Your task to perform on an android device: toggle priority inbox in the gmail app Image 0: 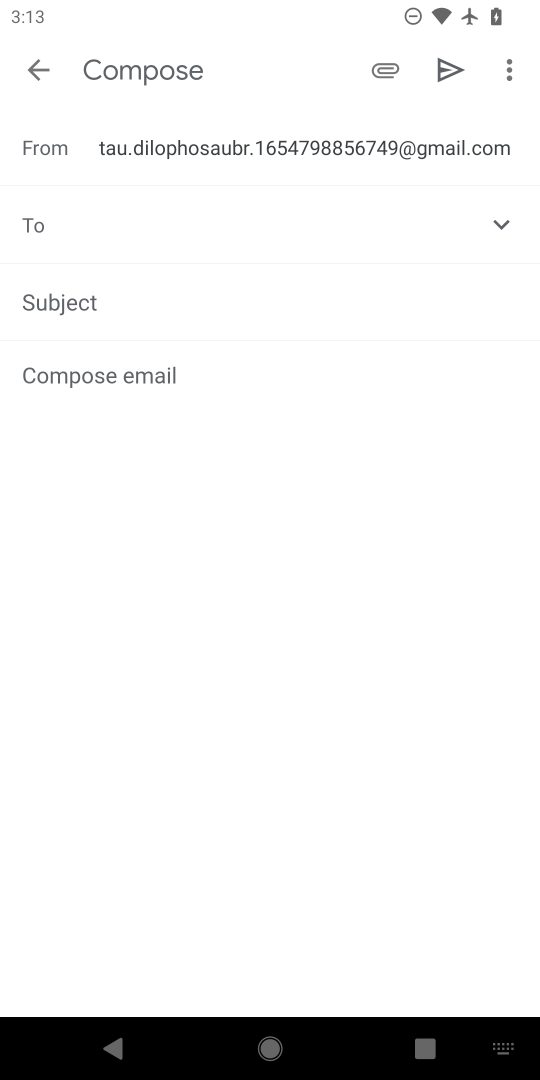
Step 0: press home button
Your task to perform on an android device: toggle priority inbox in the gmail app Image 1: 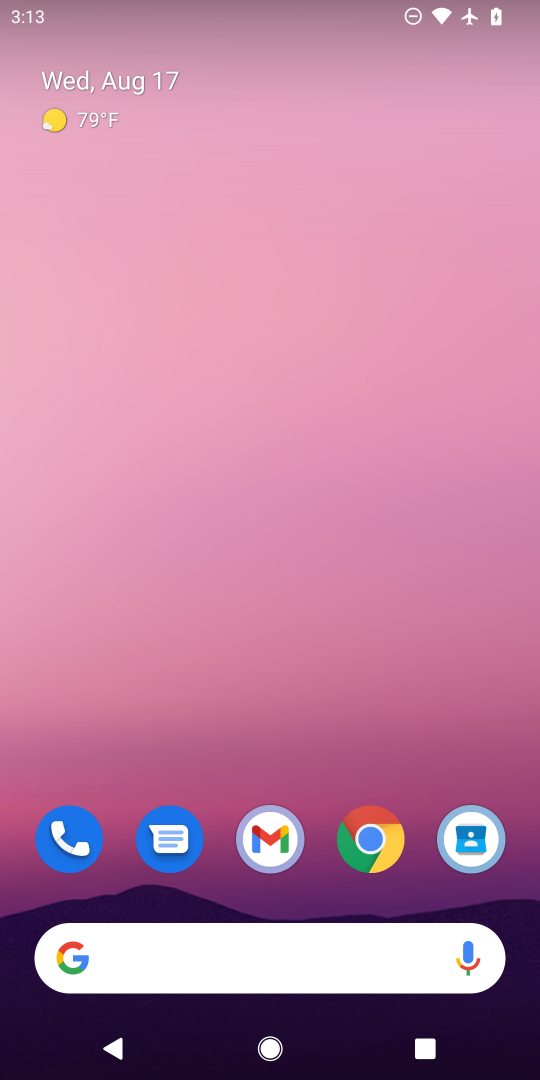
Step 1: drag from (317, 897) to (319, 208)
Your task to perform on an android device: toggle priority inbox in the gmail app Image 2: 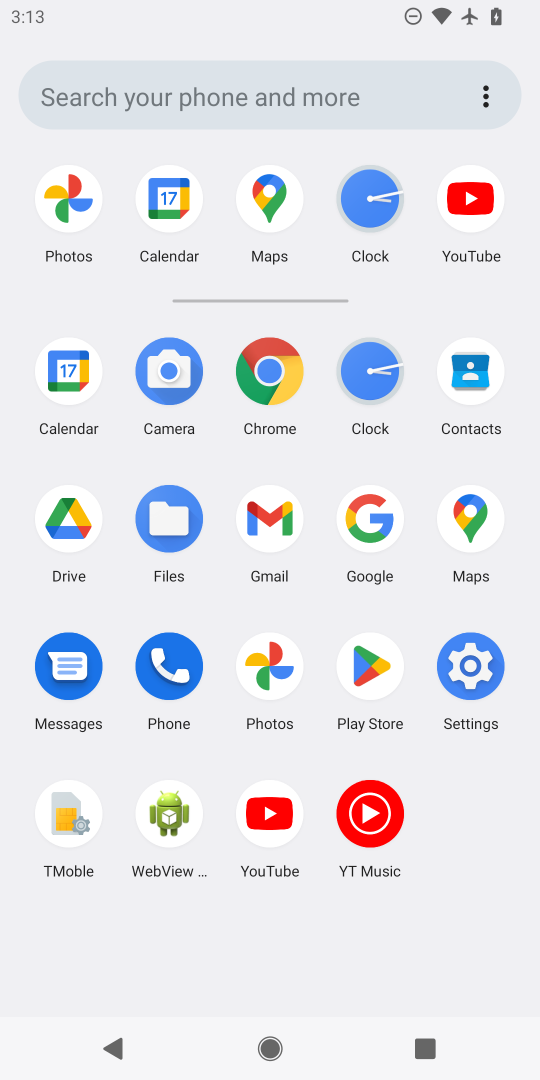
Step 2: click (267, 520)
Your task to perform on an android device: toggle priority inbox in the gmail app Image 3: 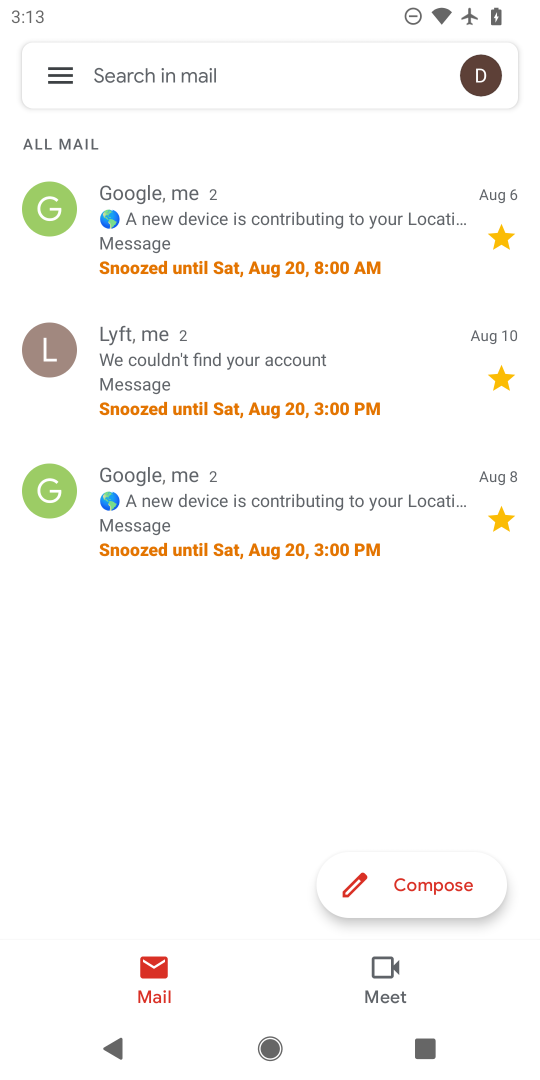
Step 3: click (64, 74)
Your task to perform on an android device: toggle priority inbox in the gmail app Image 4: 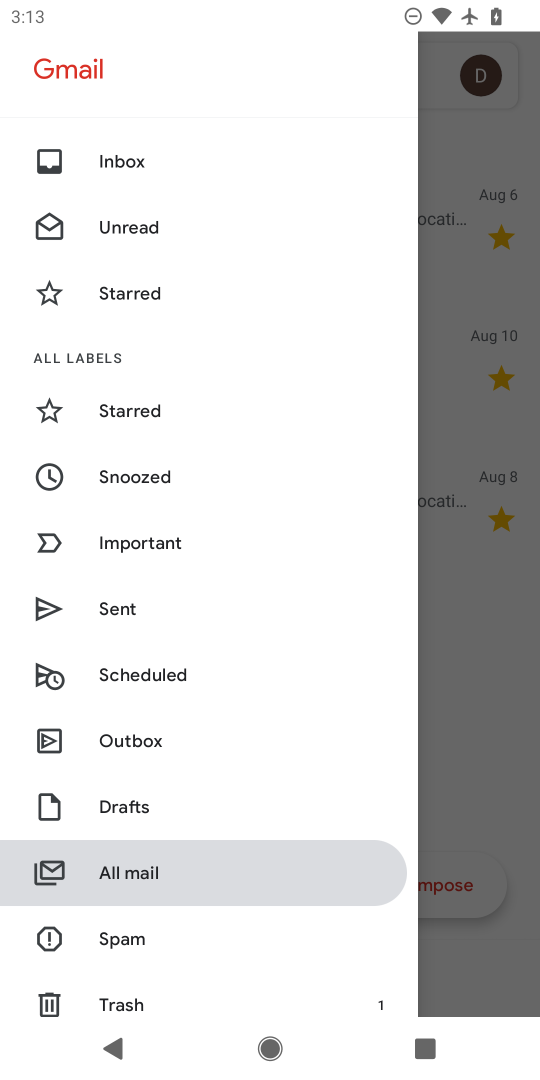
Step 4: drag from (150, 961) to (151, 537)
Your task to perform on an android device: toggle priority inbox in the gmail app Image 5: 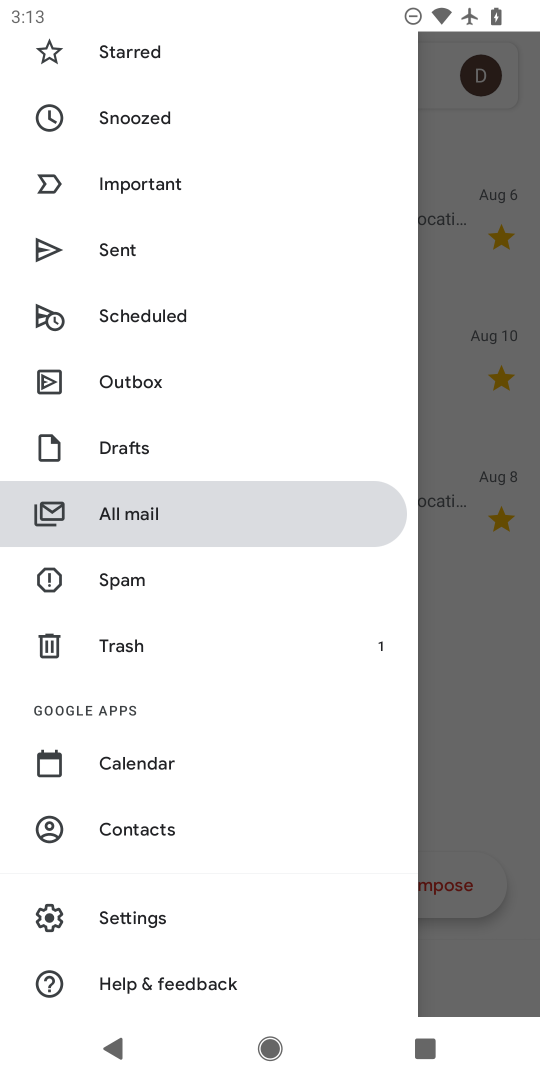
Step 5: click (156, 915)
Your task to perform on an android device: toggle priority inbox in the gmail app Image 6: 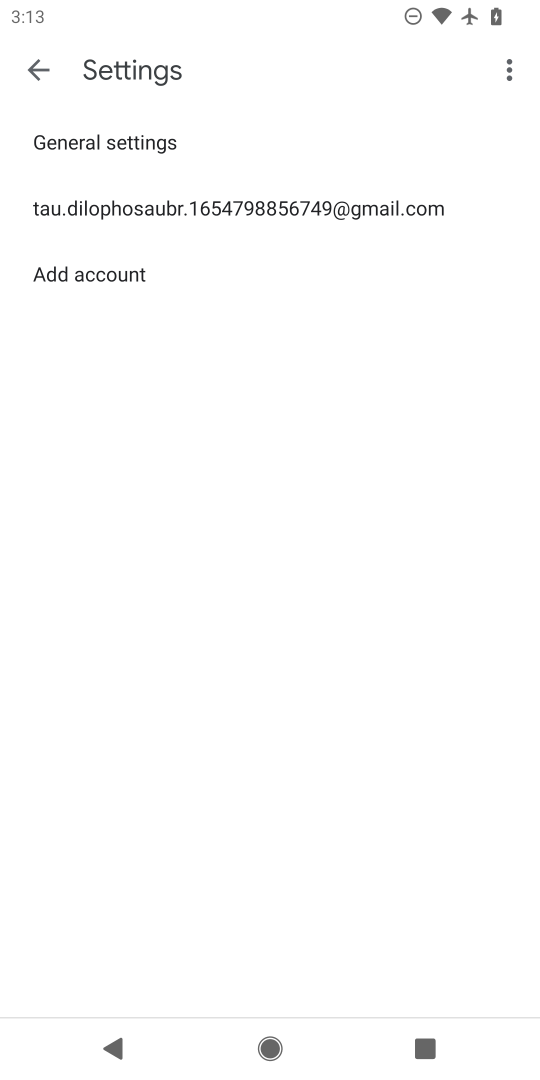
Step 6: click (136, 203)
Your task to perform on an android device: toggle priority inbox in the gmail app Image 7: 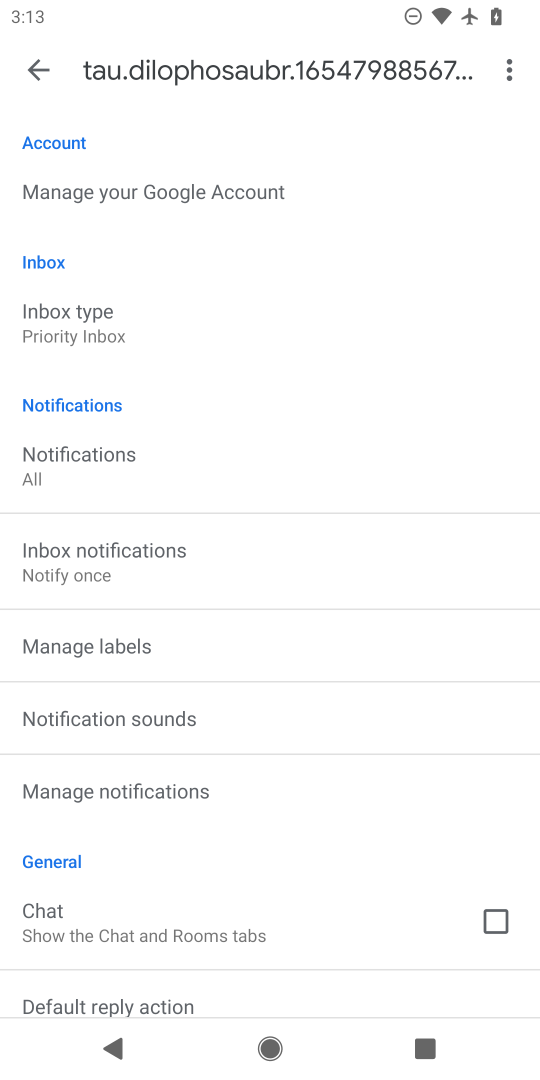
Step 7: task complete